Your task to perform on an android device: Open sound settings Image 0: 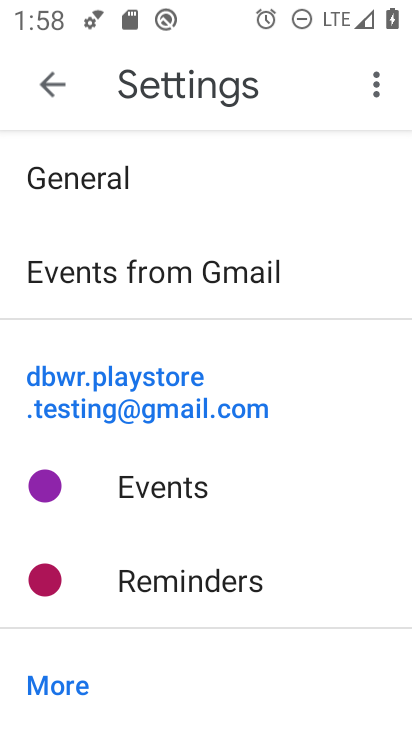
Step 0: press home button
Your task to perform on an android device: Open sound settings Image 1: 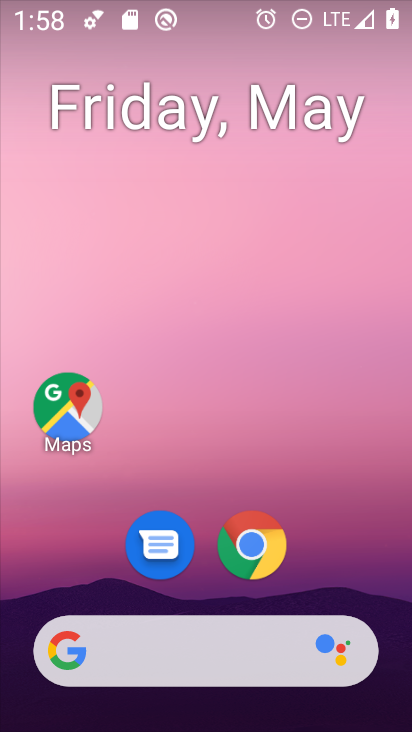
Step 1: drag from (321, 560) to (301, 261)
Your task to perform on an android device: Open sound settings Image 2: 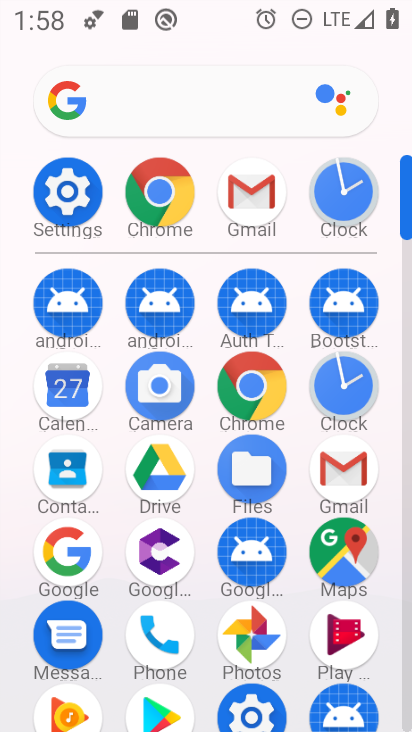
Step 2: click (58, 184)
Your task to perform on an android device: Open sound settings Image 3: 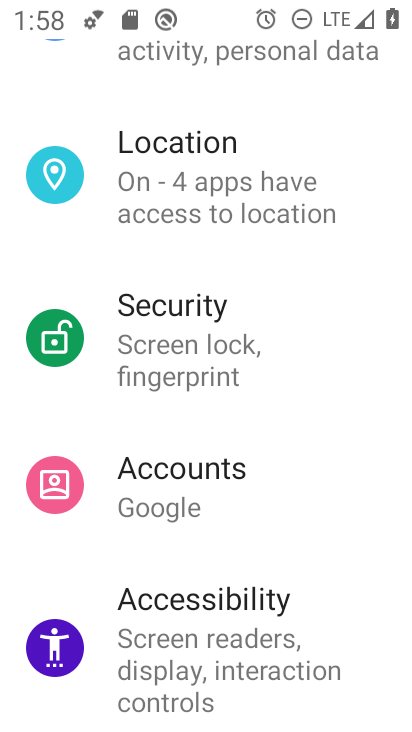
Step 3: drag from (292, 484) to (307, 183)
Your task to perform on an android device: Open sound settings Image 4: 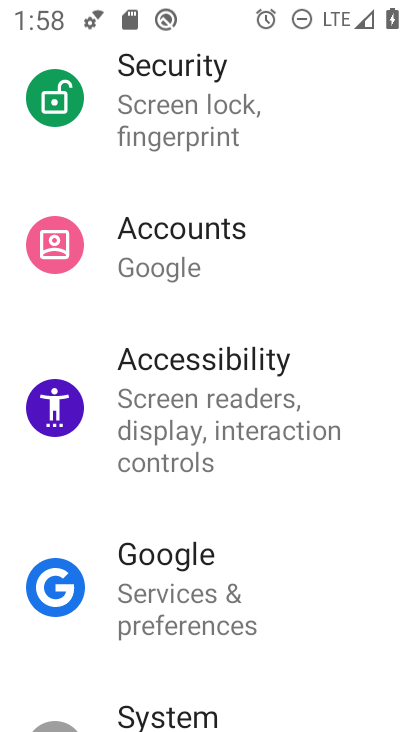
Step 4: drag from (221, 569) to (289, 111)
Your task to perform on an android device: Open sound settings Image 5: 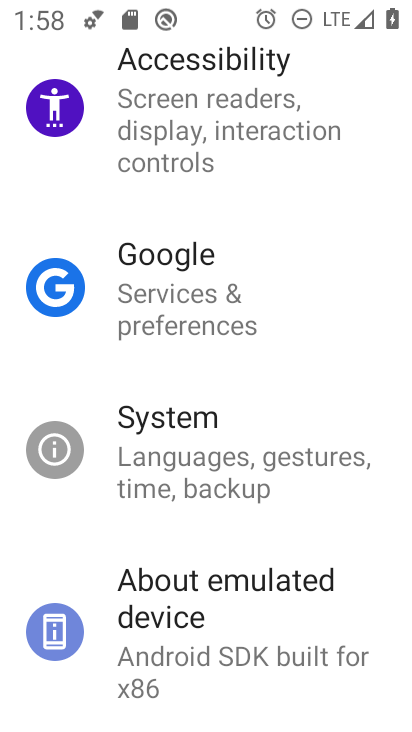
Step 5: drag from (203, 83) to (210, 659)
Your task to perform on an android device: Open sound settings Image 6: 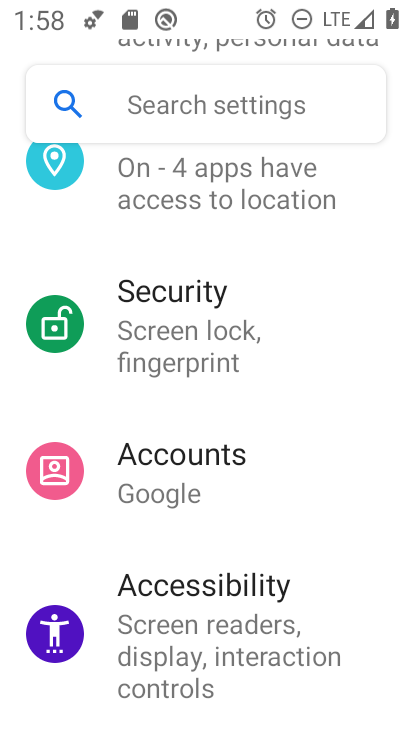
Step 6: drag from (225, 223) to (249, 691)
Your task to perform on an android device: Open sound settings Image 7: 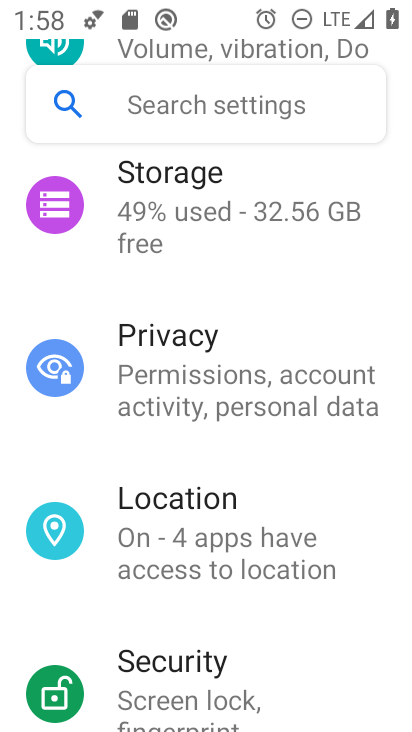
Step 7: drag from (193, 201) to (231, 693)
Your task to perform on an android device: Open sound settings Image 8: 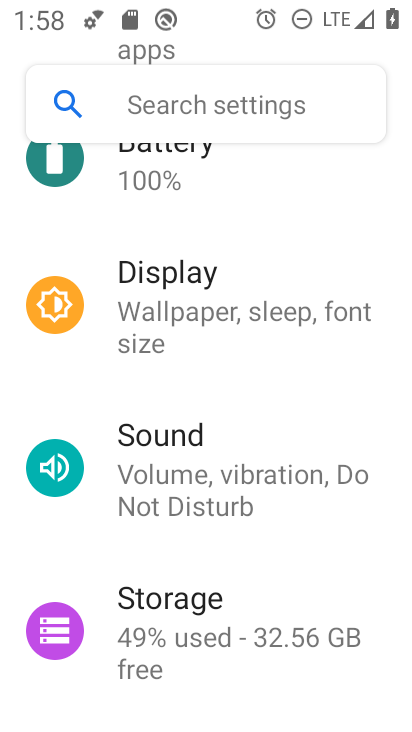
Step 8: click (170, 469)
Your task to perform on an android device: Open sound settings Image 9: 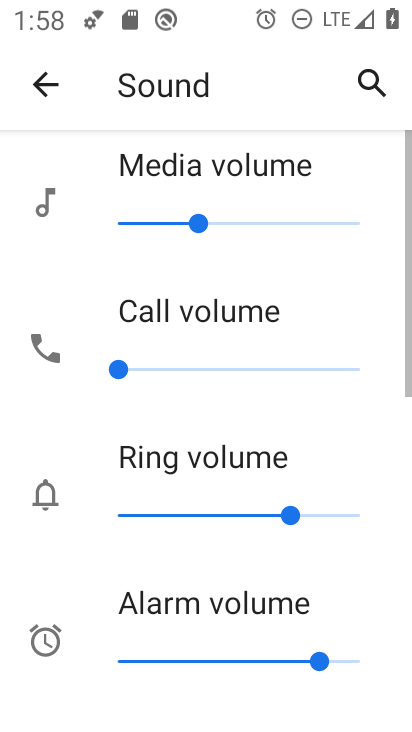
Step 9: task complete